Your task to perform on an android device: Is it going to rain today? Image 0: 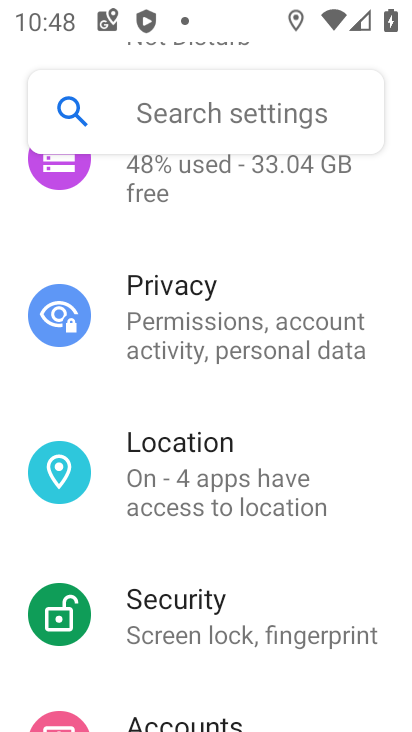
Step 0: press home button
Your task to perform on an android device: Is it going to rain today? Image 1: 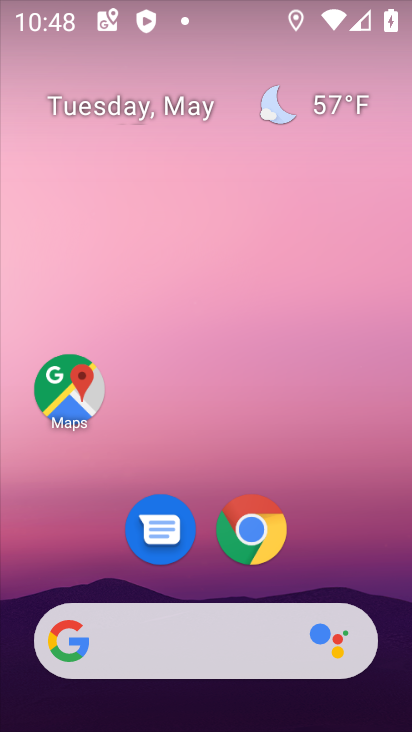
Step 1: click (330, 112)
Your task to perform on an android device: Is it going to rain today? Image 2: 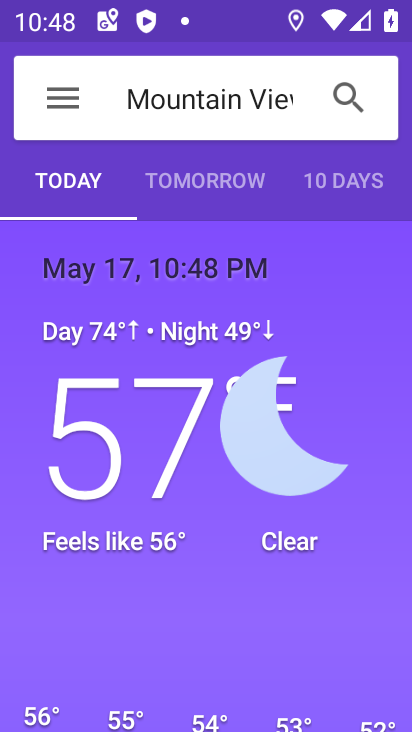
Step 2: task complete